Your task to perform on an android device: Check the news Image 0: 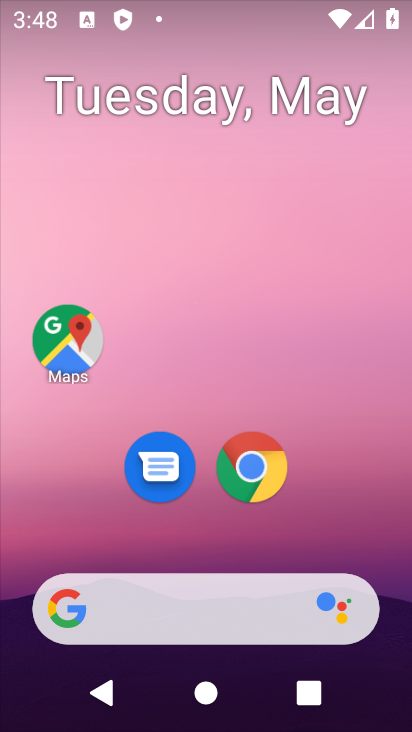
Step 0: task complete